Your task to perform on an android device: change timer sound Image 0: 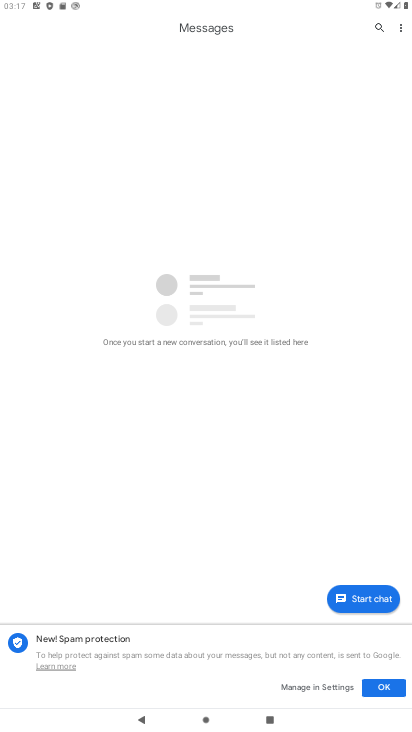
Step 0: press home button
Your task to perform on an android device: change timer sound Image 1: 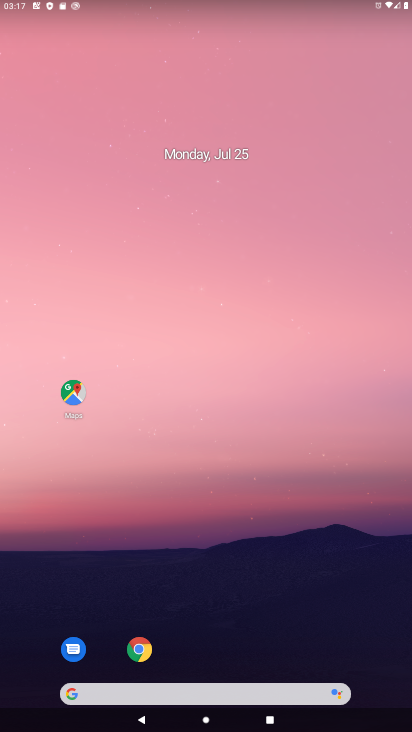
Step 1: drag from (386, 644) to (368, 245)
Your task to perform on an android device: change timer sound Image 2: 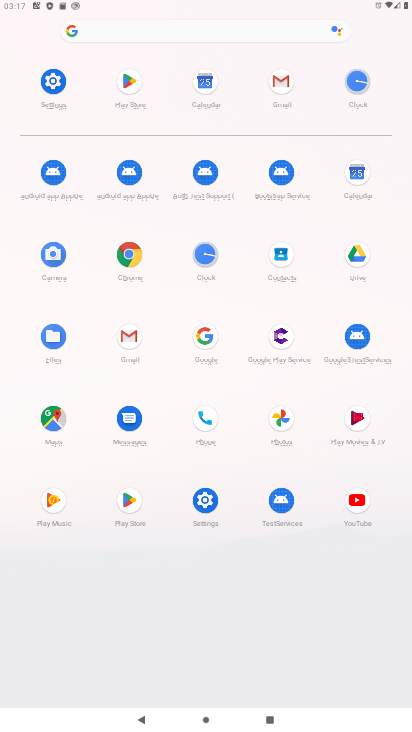
Step 2: click (203, 258)
Your task to perform on an android device: change timer sound Image 3: 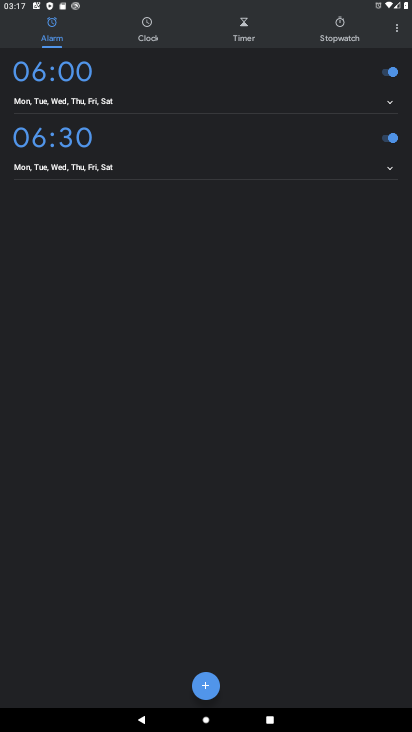
Step 3: click (397, 32)
Your task to perform on an android device: change timer sound Image 4: 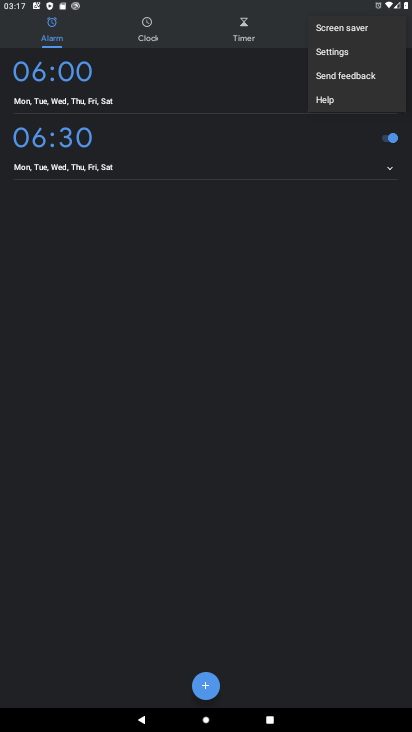
Step 4: click (340, 50)
Your task to perform on an android device: change timer sound Image 5: 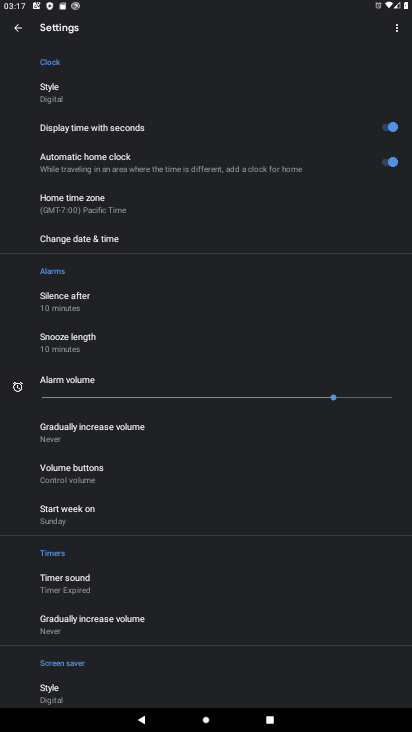
Step 5: click (68, 586)
Your task to perform on an android device: change timer sound Image 6: 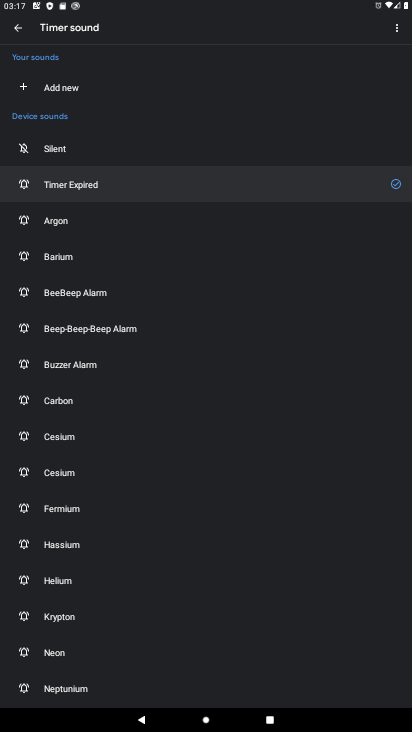
Step 6: click (59, 364)
Your task to perform on an android device: change timer sound Image 7: 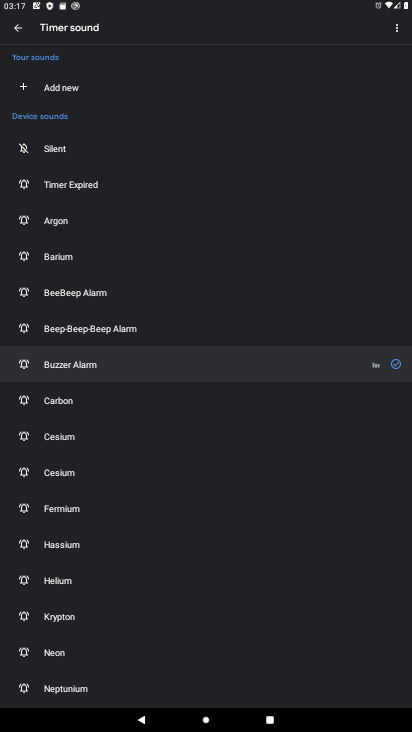
Step 7: task complete